Your task to perform on an android device: delete browsing data in the chrome app Image 0: 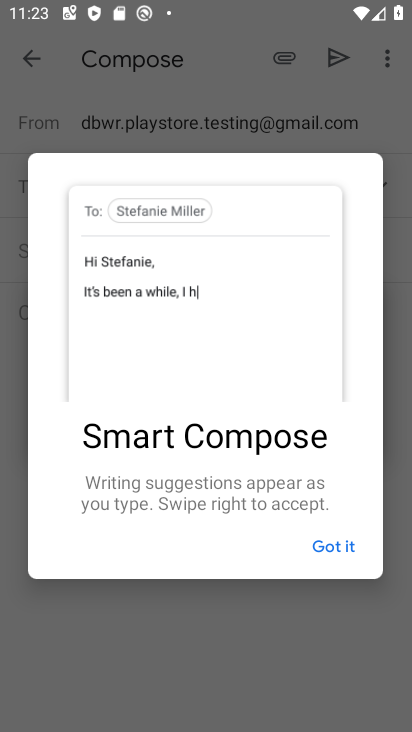
Step 0: press home button
Your task to perform on an android device: delete browsing data in the chrome app Image 1: 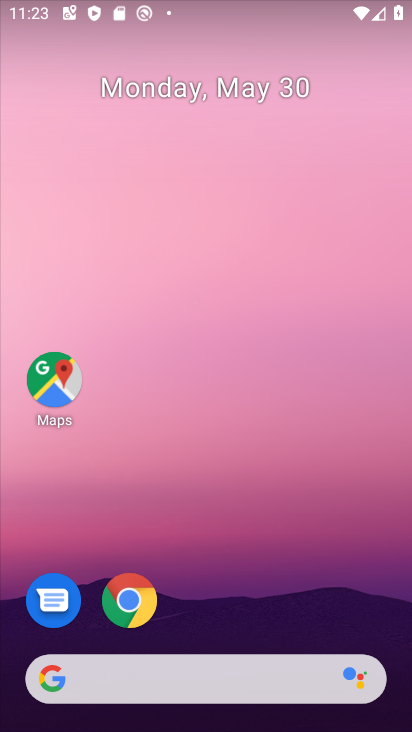
Step 1: click (133, 602)
Your task to perform on an android device: delete browsing data in the chrome app Image 2: 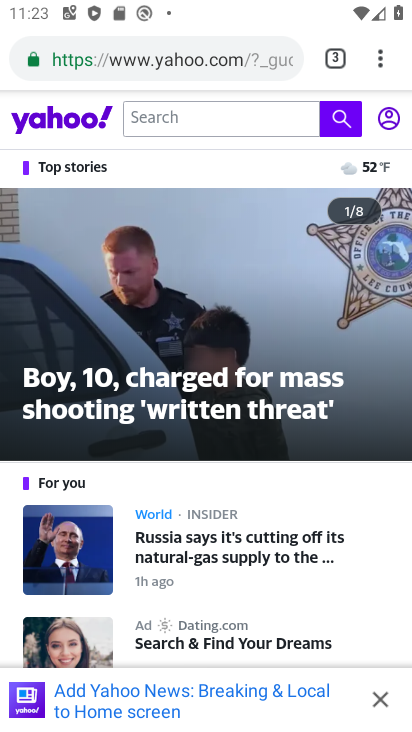
Step 2: click (381, 64)
Your task to perform on an android device: delete browsing data in the chrome app Image 3: 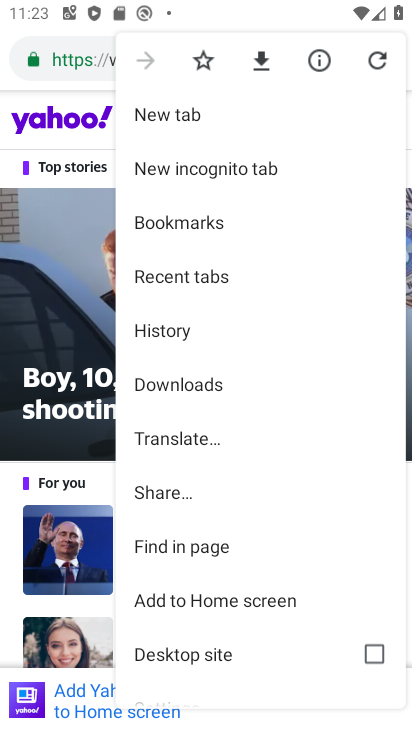
Step 3: drag from (211, 666) to (217, 157)
Your task to perform on an android device: delete browsing data in the chrome app Image 4: 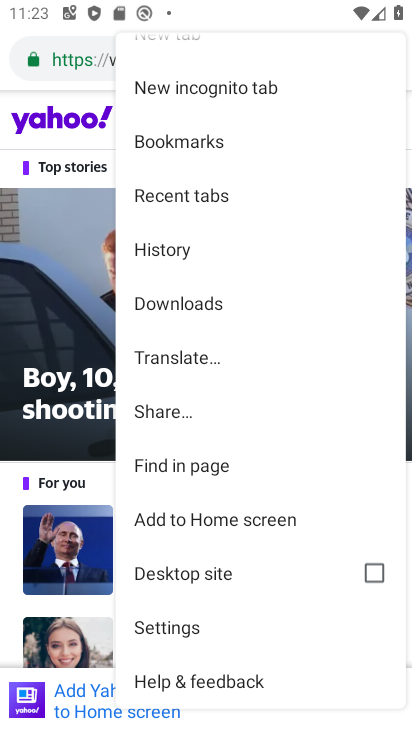
Step 4: click (167, 625)
Your task to perform on an android device: delete browsing data in the chrome app Image 5: 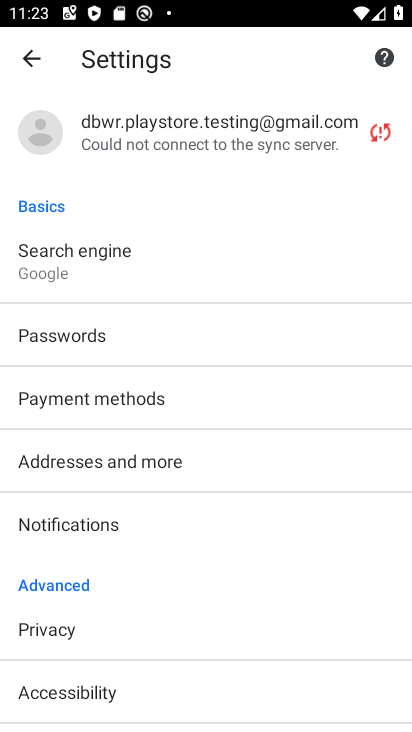
Step 5: drag from (138, 698) to (154, 556)
Your task to perform on an android device: delete browsing data in the chrome app Image 6: 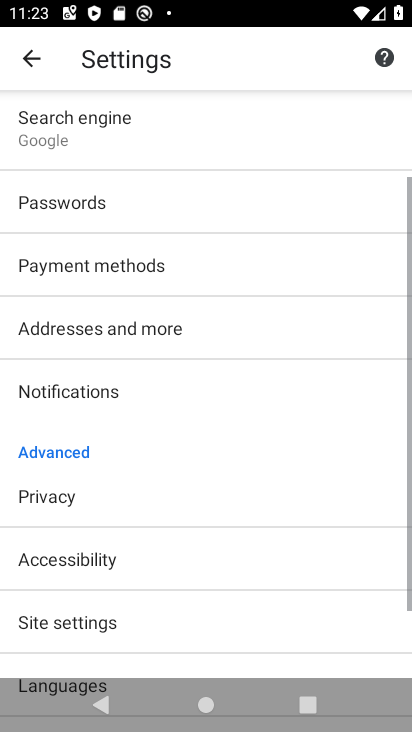
Step 6: drag from (162, 283) to (160, 155)
Your task to perform on an android device: delete browsing data in the chrome app Image 7: 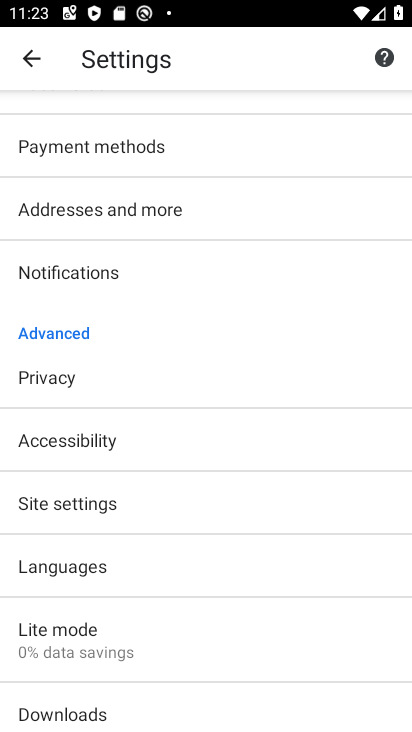
Step 7: drag from (185, 187) to (160, 518)
Your task to perform on an android device: delete browsing data in the chrome app Image 8: 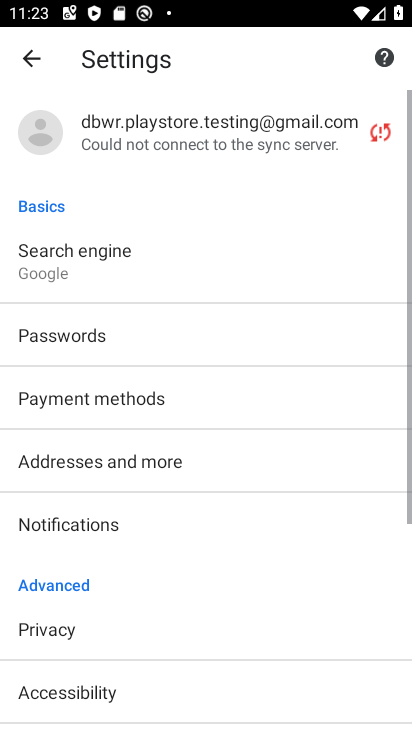
Step 8: drag from (134, 688) to (141, 244)
Your task to perform on an android device: delete browsing data in the chrome app Image 9: 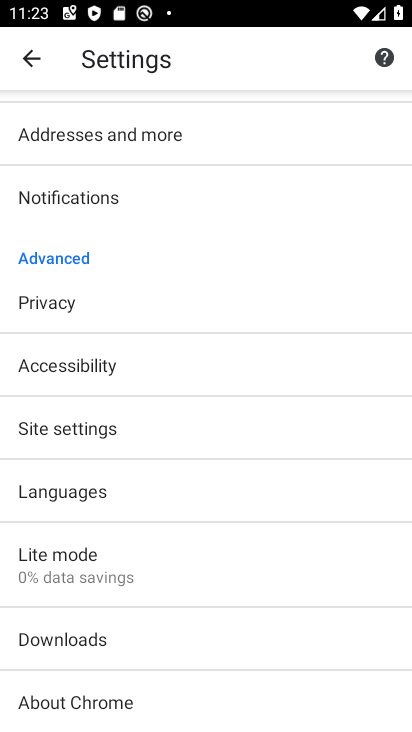
Step 9: click (64, 301)
Your task to perform on an android device: delete browsing data in the chrome app Image 10: 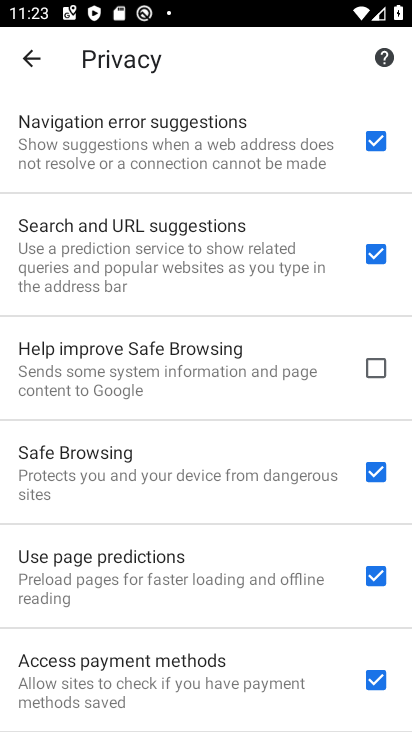
Step 10: drag from (180, 710) to (183, 402)
Your task to perform on an android device: delete browsing data in the chrome app Image 11: 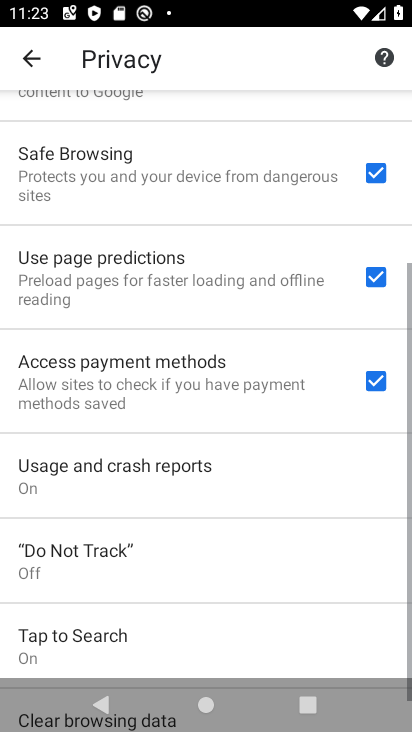
Step 11: click (183, 193)
Your task to perform on an android device: delete browsing data in the chrome app Image 12: 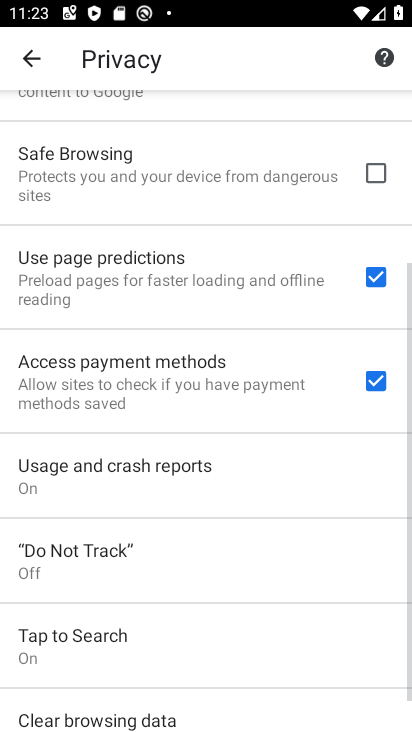
Step 12: drag from (171, 689) to (162, 177)
Your task to perform on an android device: delete browsing data in the chrome app Image 13: 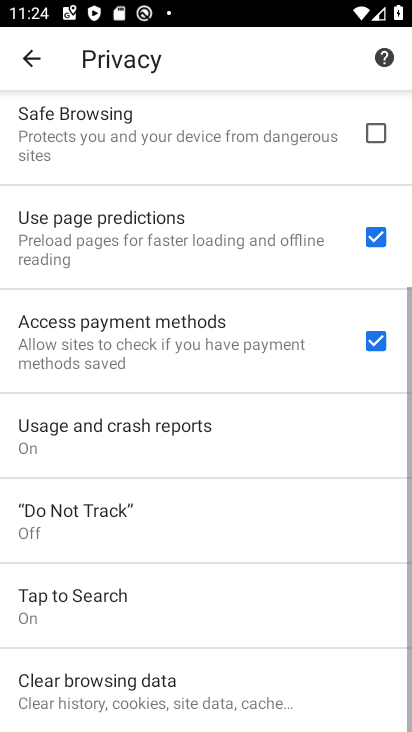
Step 13: click (118, 685)
Your task to perform on an android device: delete browsing data in the chrome app Image 14: 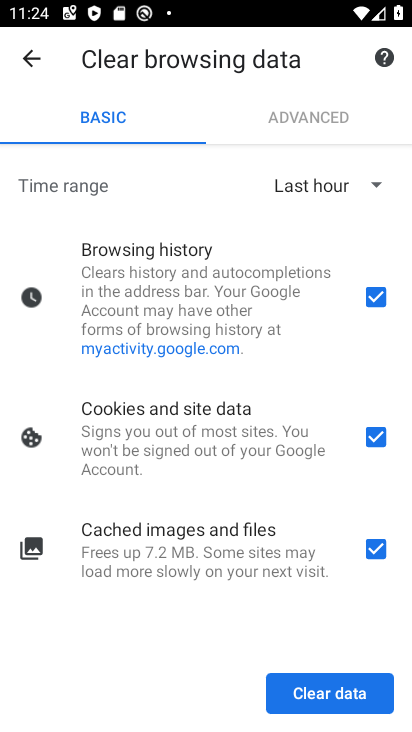
Step 14: click (373, 439)
Your task to perform on an android device: delete browsing data in the chrome app Image 15: 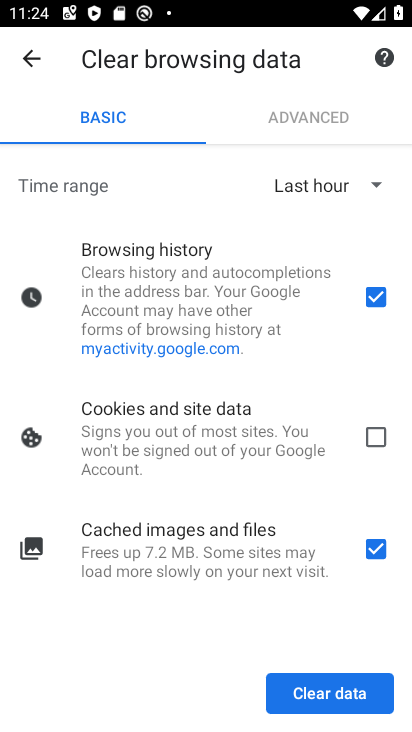
Step 15: click (377, 550)
Your task to perform on an android device: delete browsing data in the chrome app Image 16: 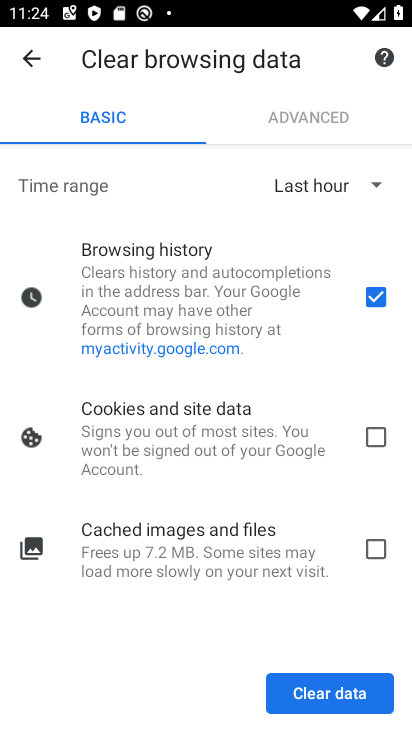
Step 16: click (325, 701)
Your task to perform on an android device: delete browsing data in the chrome app Image 17: 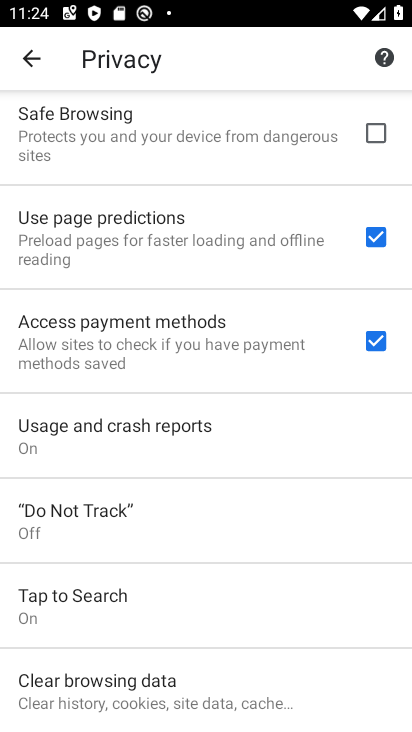
Step 17: task complete